Your task to perform on an android device: Show me productivity apps on the Play Store Image 0: 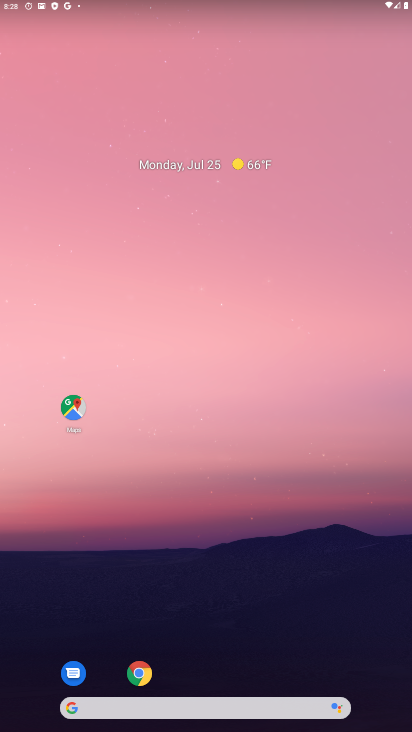
Step 0: drag from (196, 643) to (212, 92)
Your task to perform on an android device: Show me productivity apps on the Play Store Image 1: 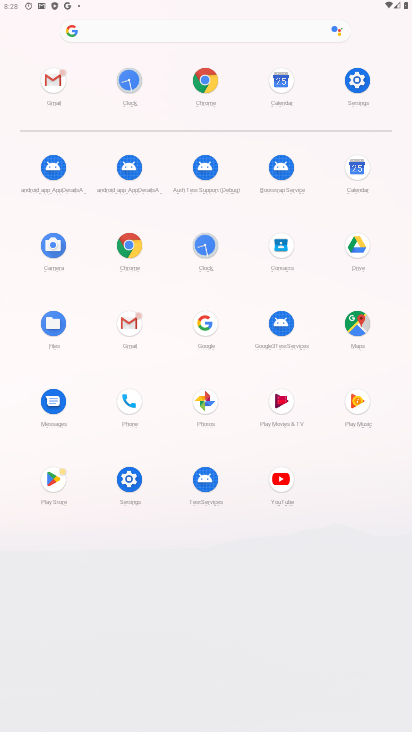
Step 1: click (51, 464)
Your task to perform on an android device: Show me productivity apps on the Play Store Image 2: 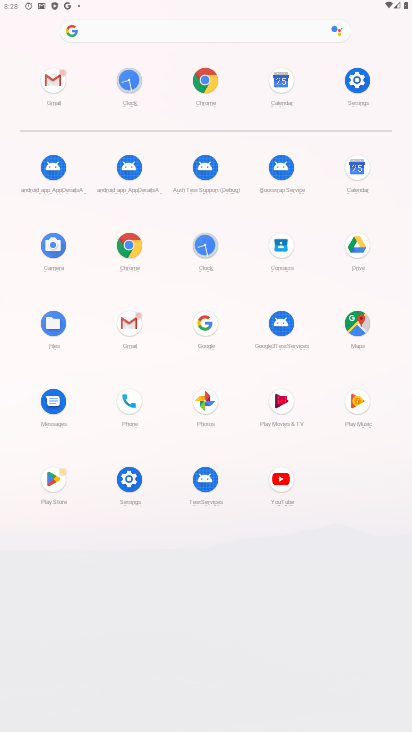
Step 2: click (46, 474)
Your task to perform on an android device: Show me productivity apps on the Play Store Image 3: 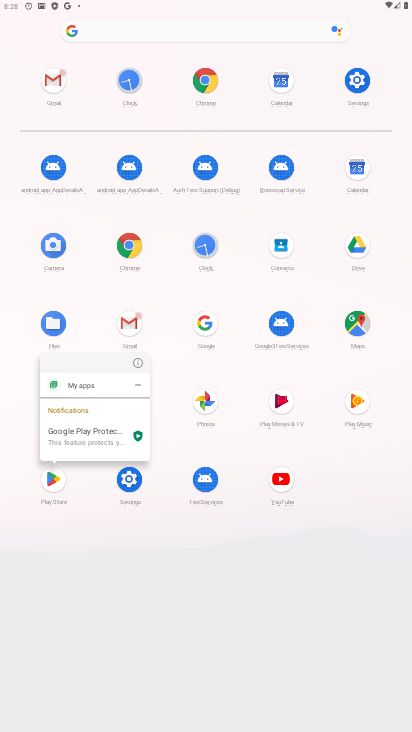
Step 3: click (142, 358)
Your task to perform on an android device: Show me productivity apps on the Play Store Image 4: 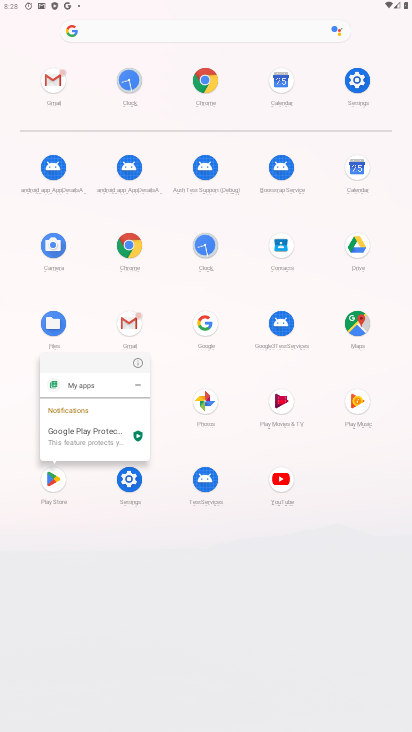
Step 4: click (142, 358)
Your task to perform on an android device: Show me productivity apps on the Play Store Image 5: 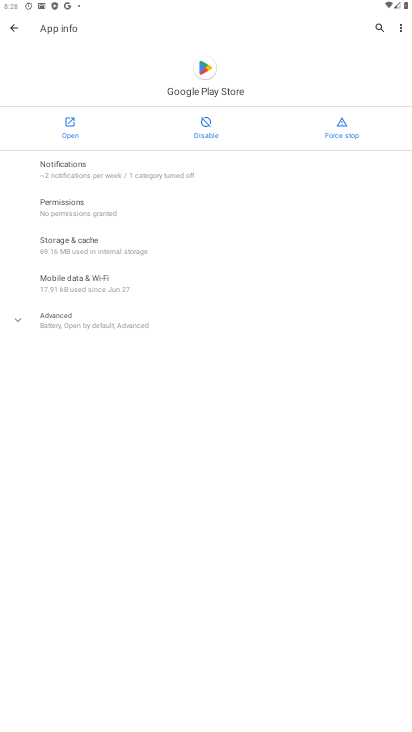
Step 5: click (73, 127)
Your task to perform on an android device: Show me productivity apps on the Play Store Image 6: 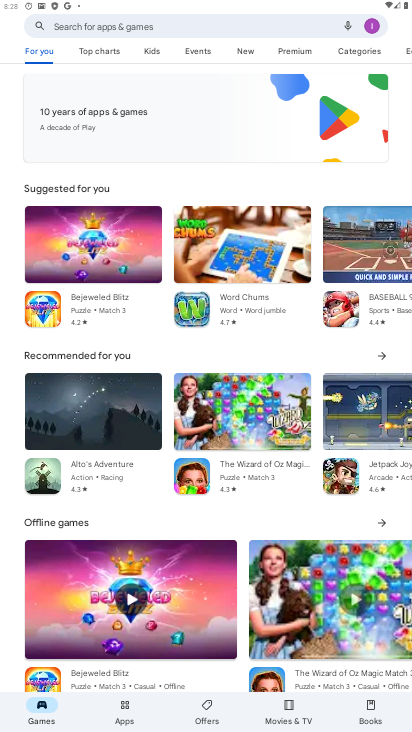
Step 6: task complete